Your task to perform on an android device: toggle javascript in the chrome app Image 0: 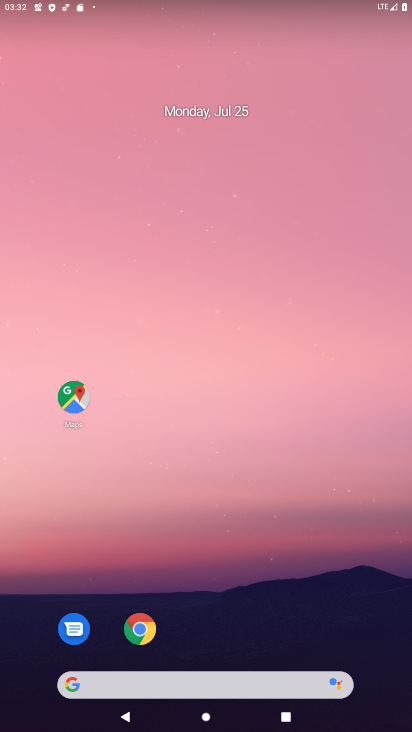
Step 0: click (135, 621)
Your task to perform on an android device: toggle javascript in the chrome app Image 1: 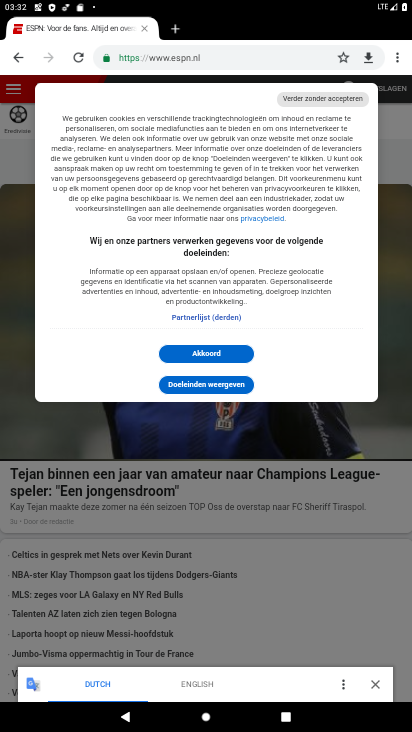
Step 1: drag from (399, 54) to (268, 384)
Your task to perform on an android device: toggle javascript in the chrome app Image 2: 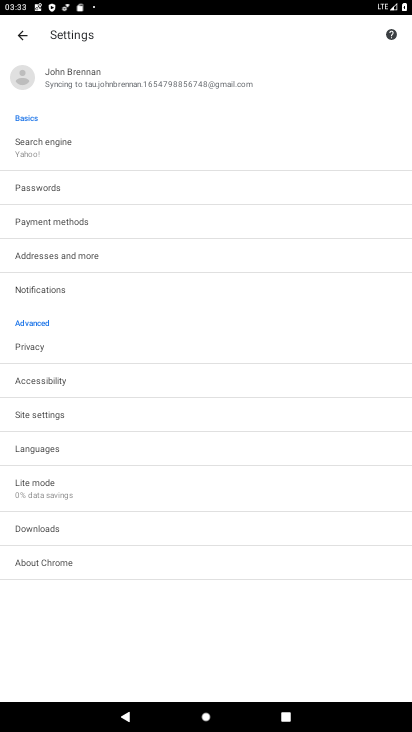
Step 2: click (34, 412)
Your task to perform on an android device: toggle javascript in the chrome app Image 3: 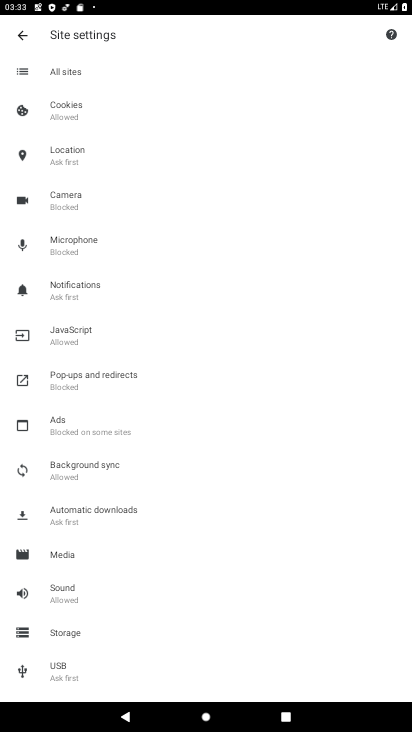
Step 3: click (78, 339)
Your task to perform on an android device: toggle javascript in the chrome app Image 4: 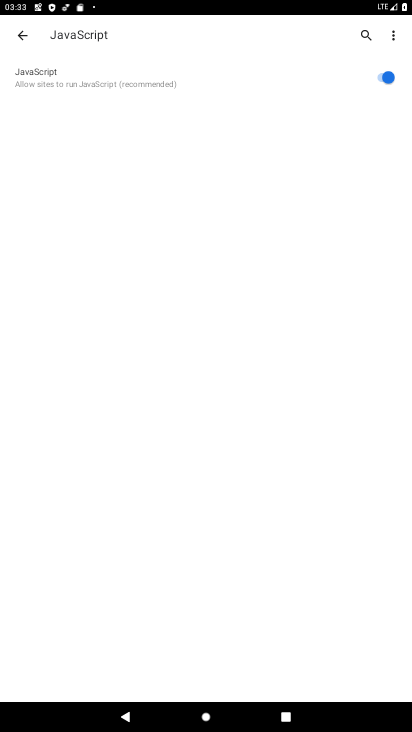
Step 4: click (379, 86)
Your task to perform on an android device: toggle javascript in the chrome app Image 5: 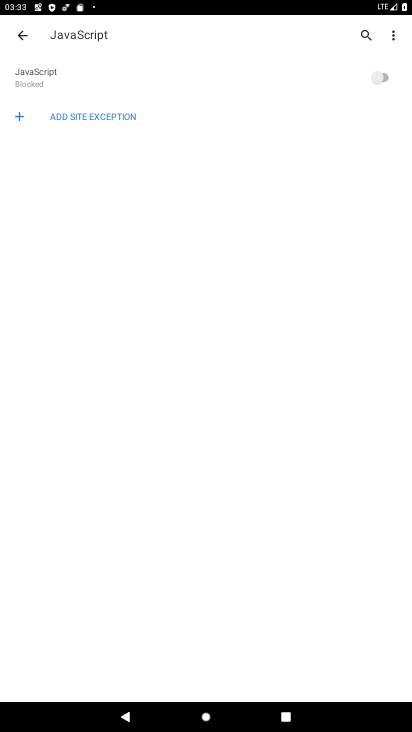
Step 5: task complete